Your task to perform on an android device: Open the Play Movies app and select the watchlist tab. Image 0: 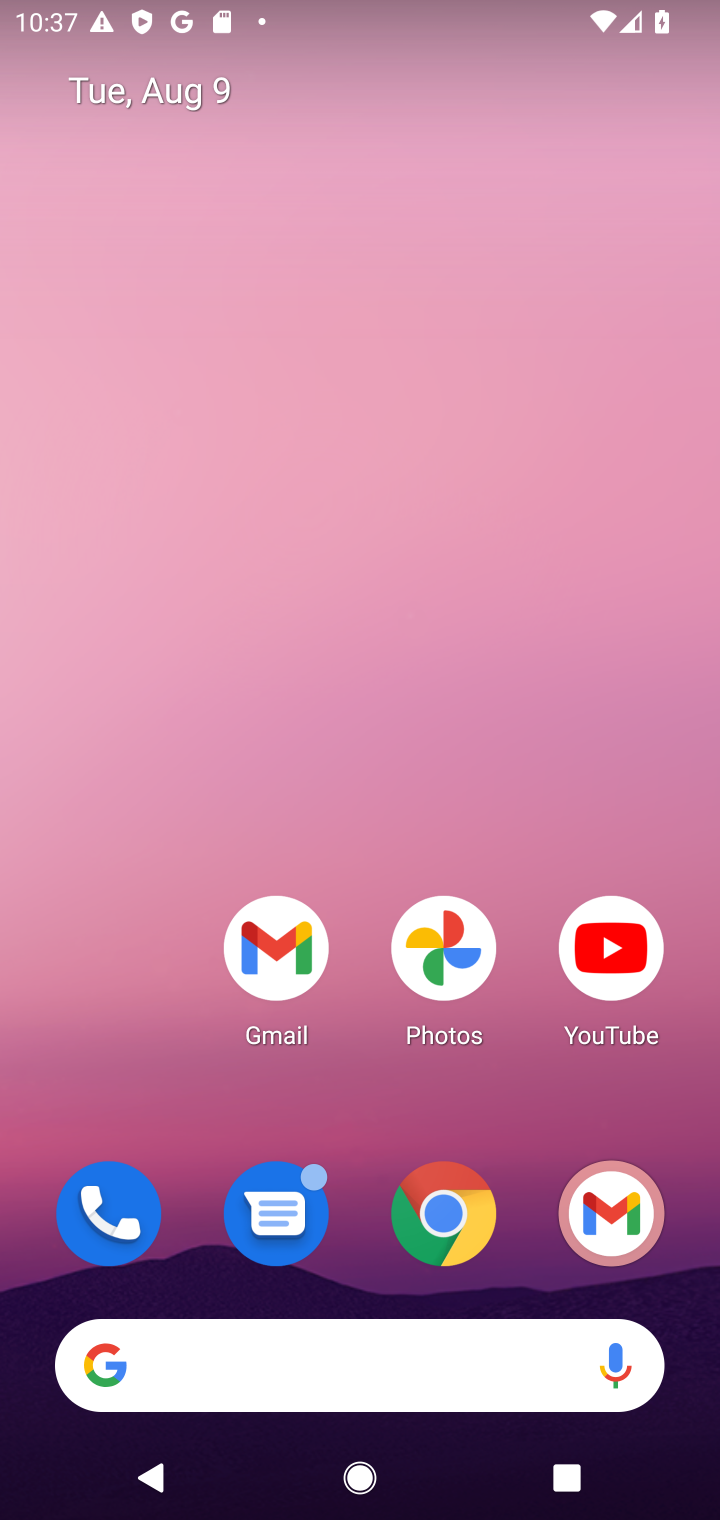
Step 0: drag from (377, 1299) to (324, 255)
Your task to perform on an android device: Open the Play Movies app and select the watchlist tab. Image 1: 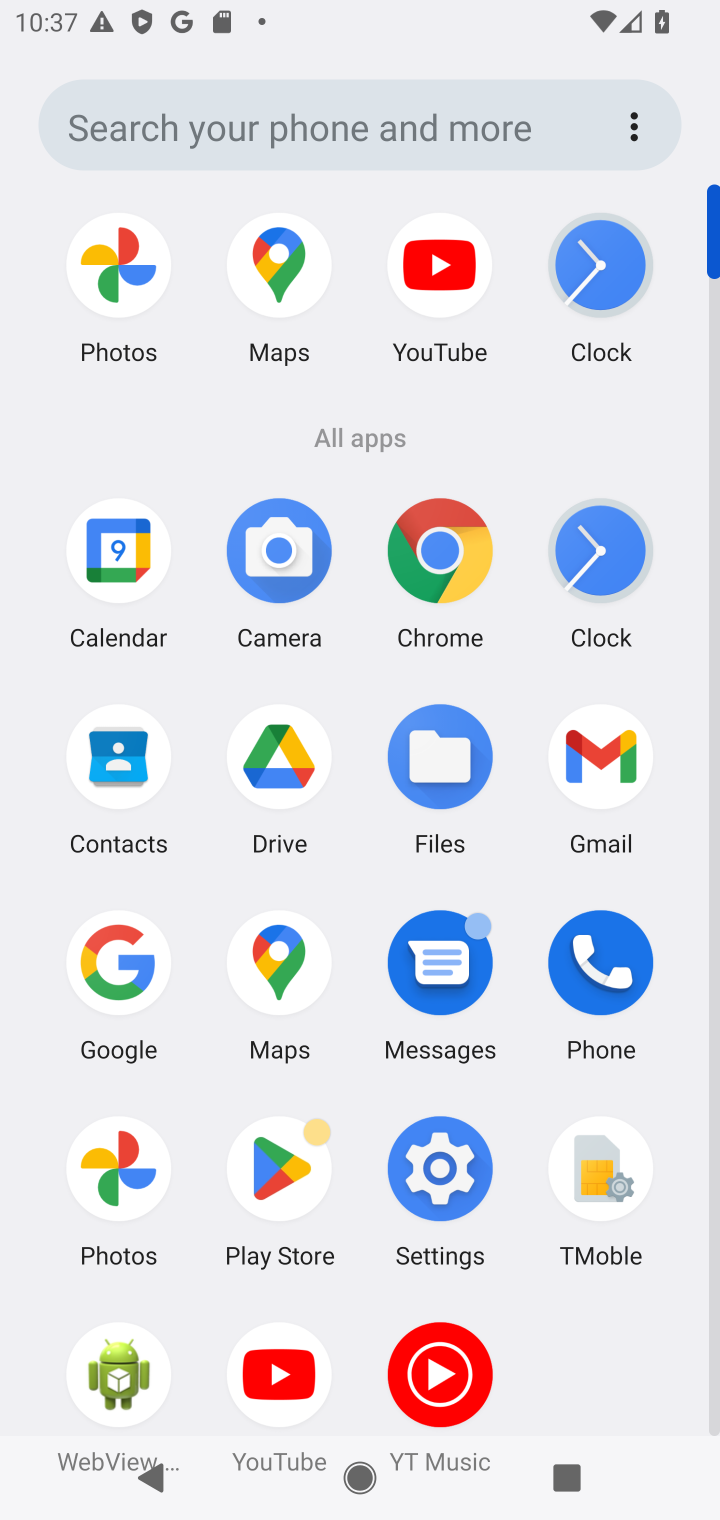
Step 1: task complete